Your task to perform on an android device: When is my next appointment? Image 0: 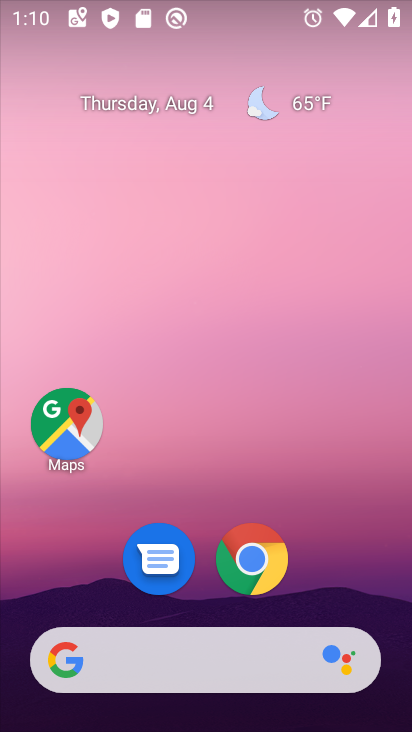
Step 0: drag from (186, 681) to (238, 90)
Your task to perform on an android device: When is my next appointment? Image 1: 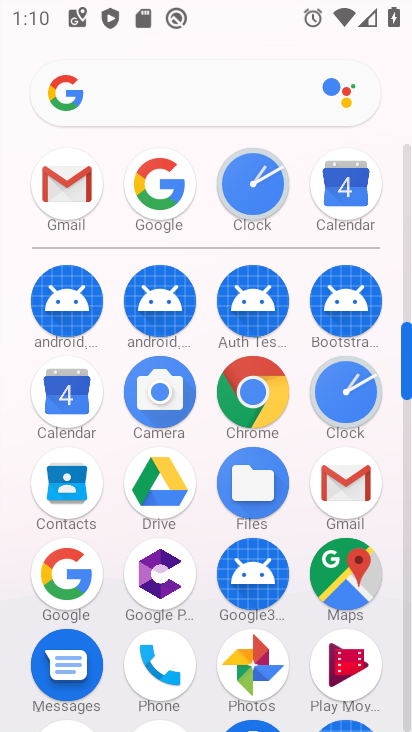
Step 1: click (348, 189)
Your task to perform on an android device: When is my next appointment? Image 2: 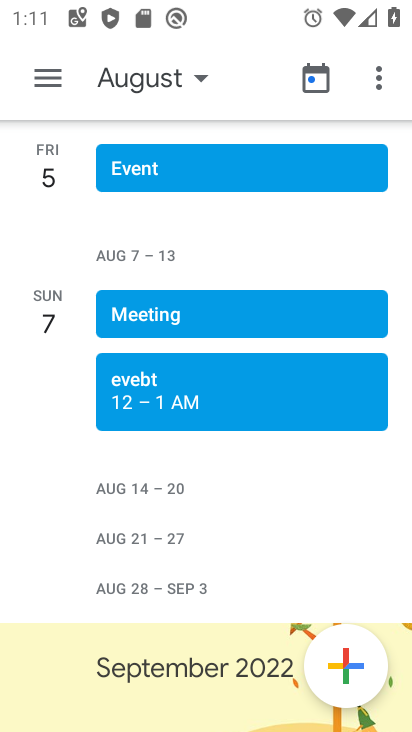
Step 2: click (198, 79)
Your task to perform on an android device: When is my next appointment? Image 3: 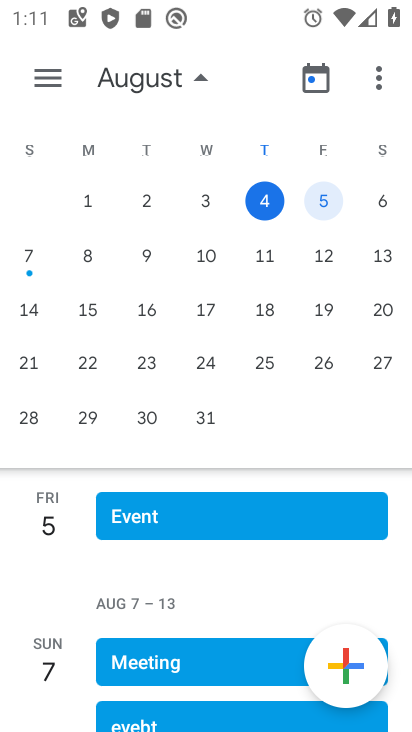
Step 3: click (322, 203)
Your task to perform on an android device: When is my next appointment? Image 4: 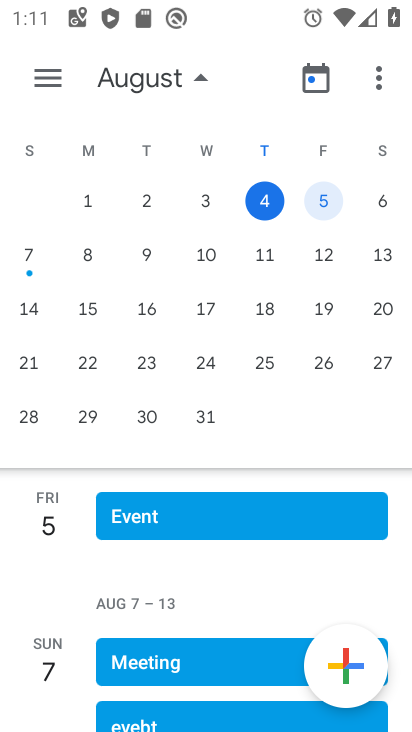
Step 4: click (47, 81)
Your task to perform on an android device: When is my next appointment? Image 5: 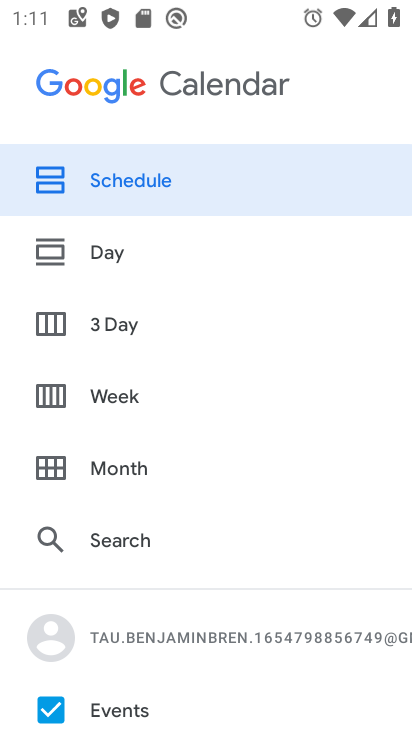
Step 5: click (113, 198)
Your task to perform on an android device: When is my next appointment? Image 6: 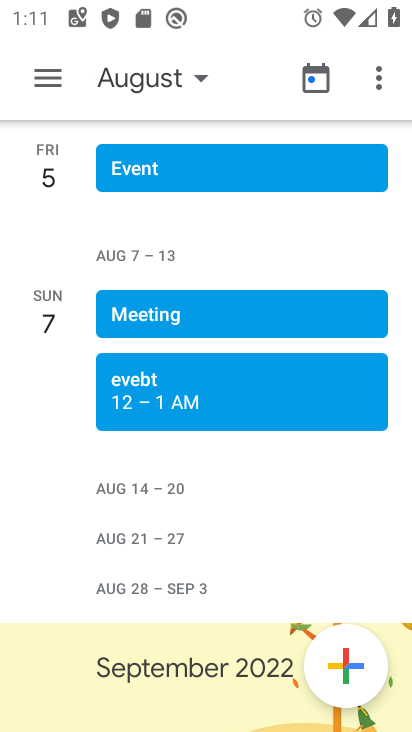
Step 6: task complete